Your task to perform on an android device: check android version Image 0: 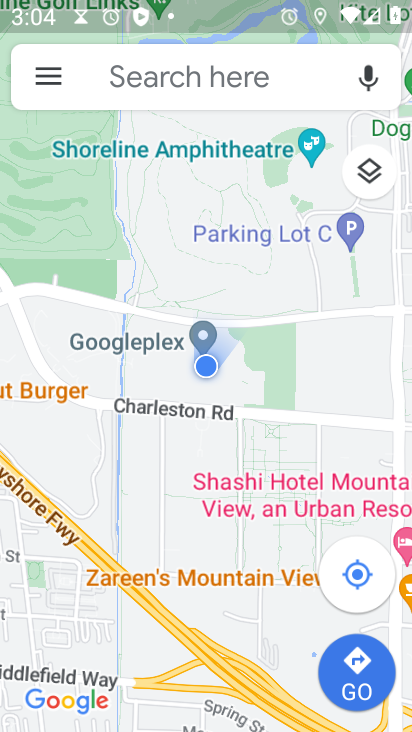
Step 0: press back button
Your task to perform on an android device: check android version Image 1: 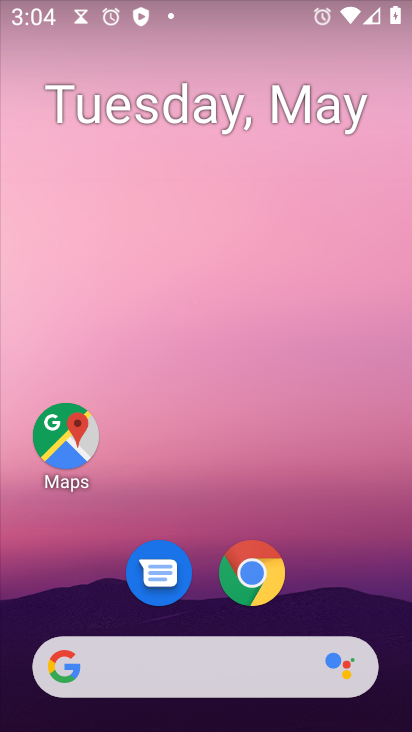
Step 1: drag from (370, 630) to (246, 96)
Your task to perform on an android device: check android version Image 2: 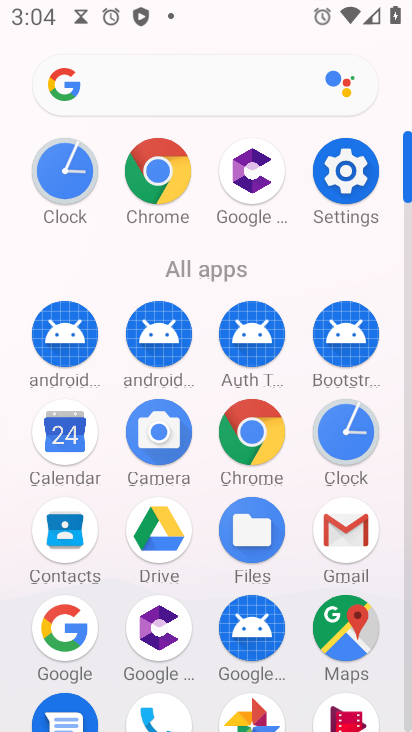
Step 2: click (346, 166)
Your task to perform on an android device: check android version Image 3: 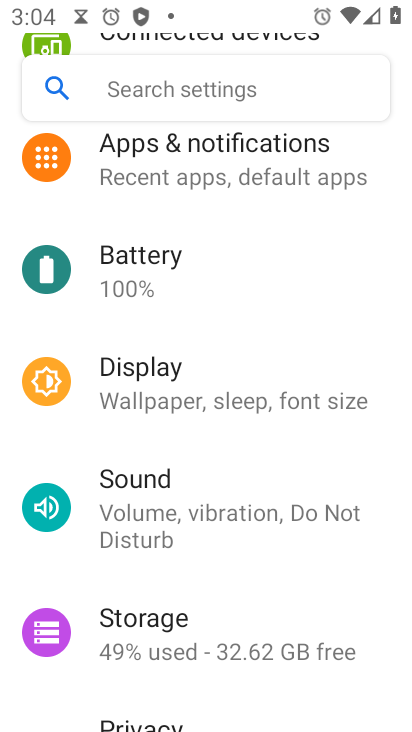
Step 3: drag from (263, 593) to (323, 111)
Your task to perform on an android device: check android version Image 4: 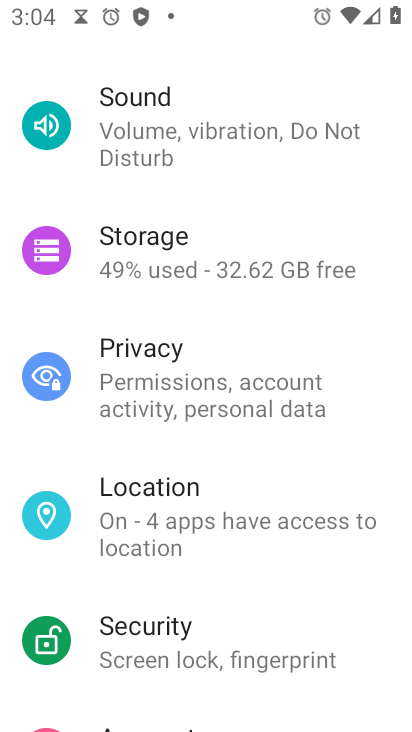
Step 4: drag from (271, 628) to (287, 481)
Your task to perform on an android device: check android version Image 5: 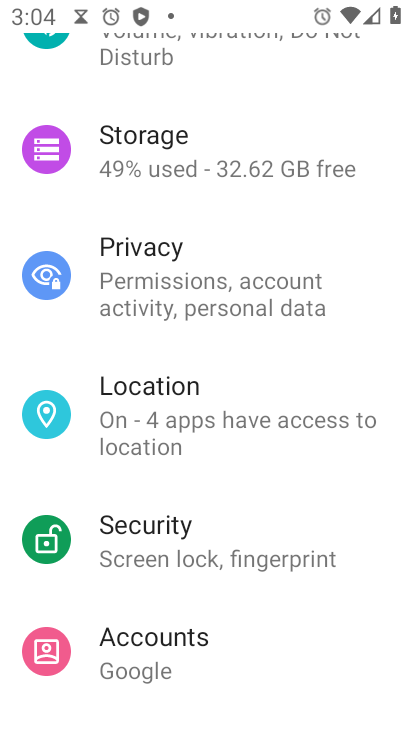
Step 5: drag from (245, 509) to (250, 145)
Your task to perform on an android device: check android version Image 6: 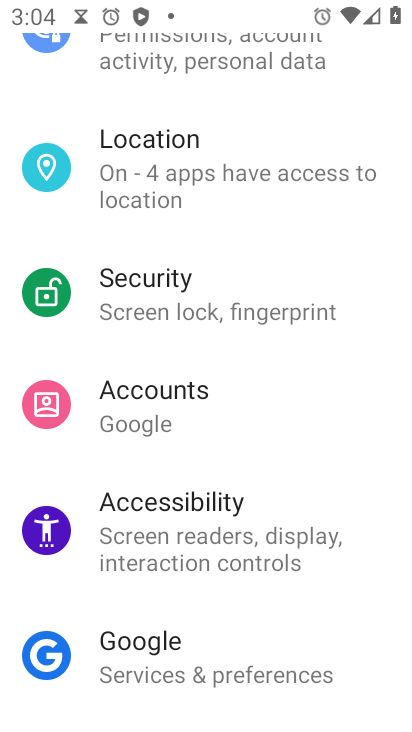
Step 6: drag from (272, 582) to (255, 175)
Your task to perform on an android device: check android version Image 7: 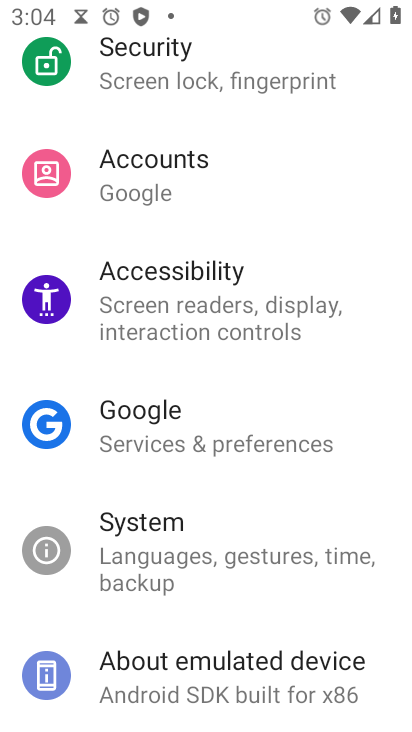
Step 7: drag from (305, 636) to (306, 202)
Your task to perform on an android device: check android version Image 8: 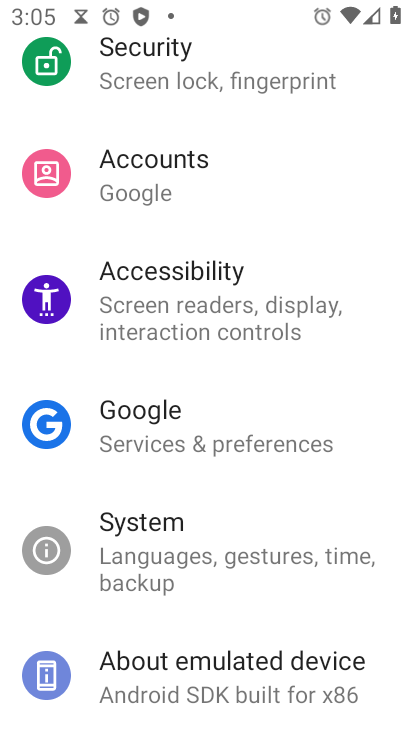
Step 8: click (236, 673)
Your task to perform on an android device: check android version Image 9: 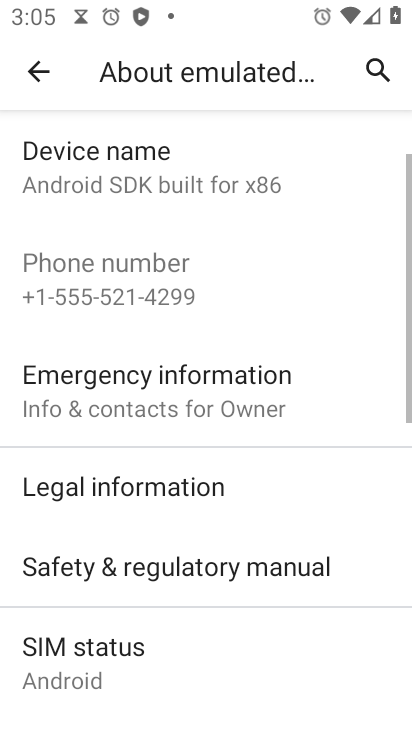
Step 9: task complete